Your task to perform on an android device: uninstall "Paramount+ | Peak Streaming" Image 0: 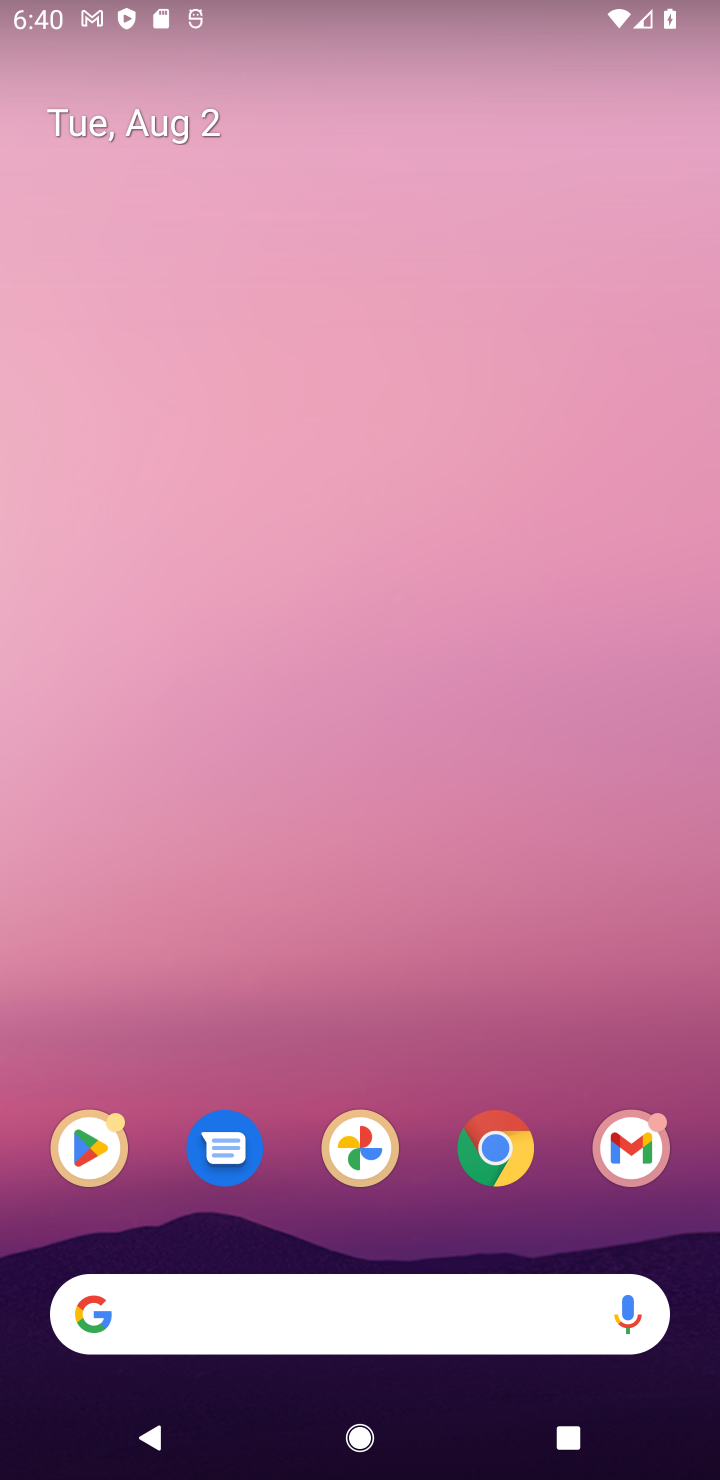
Step 0: drag from (683, 1278) to (391, 177)
Your task to perform on an android device: uninstall "Paramount+ | Peak Streaming" Image 1: 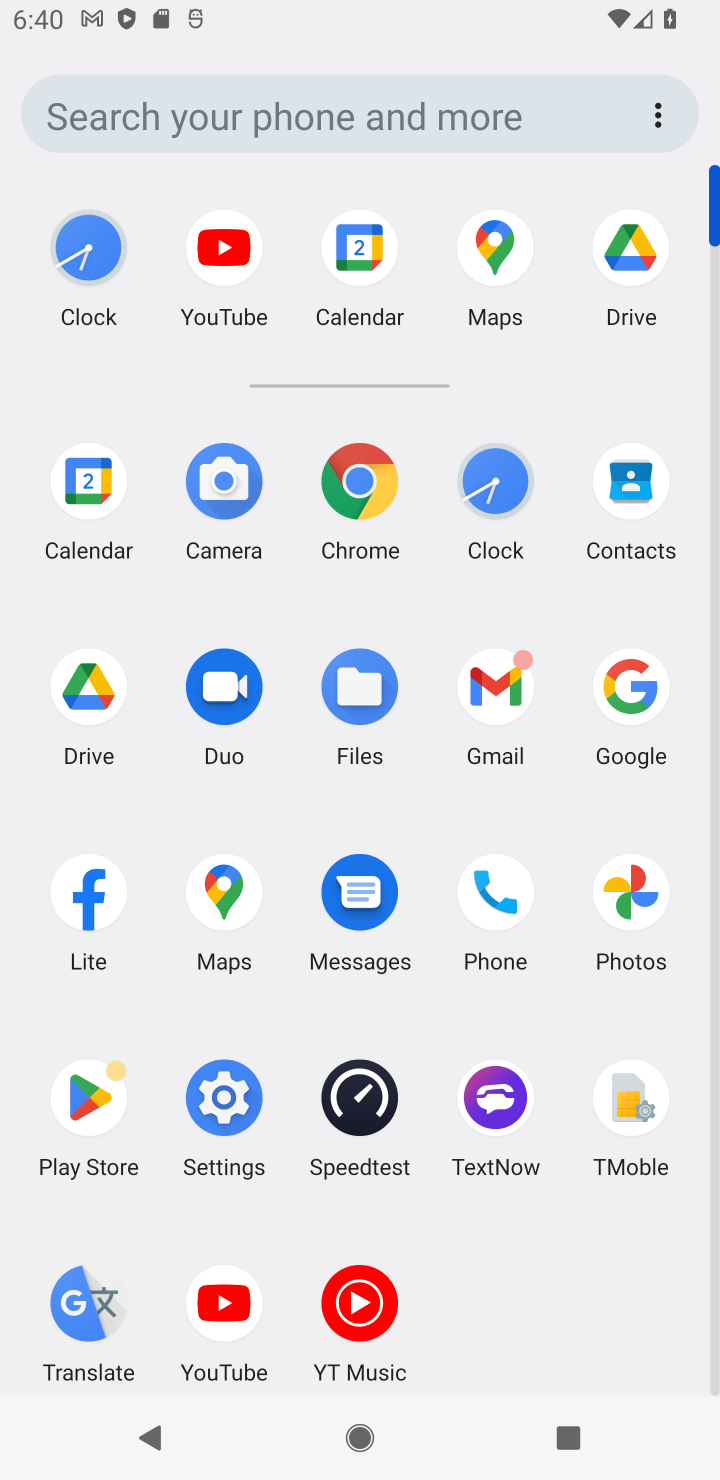
Step 1: press home button
Your task to perform on an android device: uninstall "Paramount+ | Peak Streaming" Image 2: 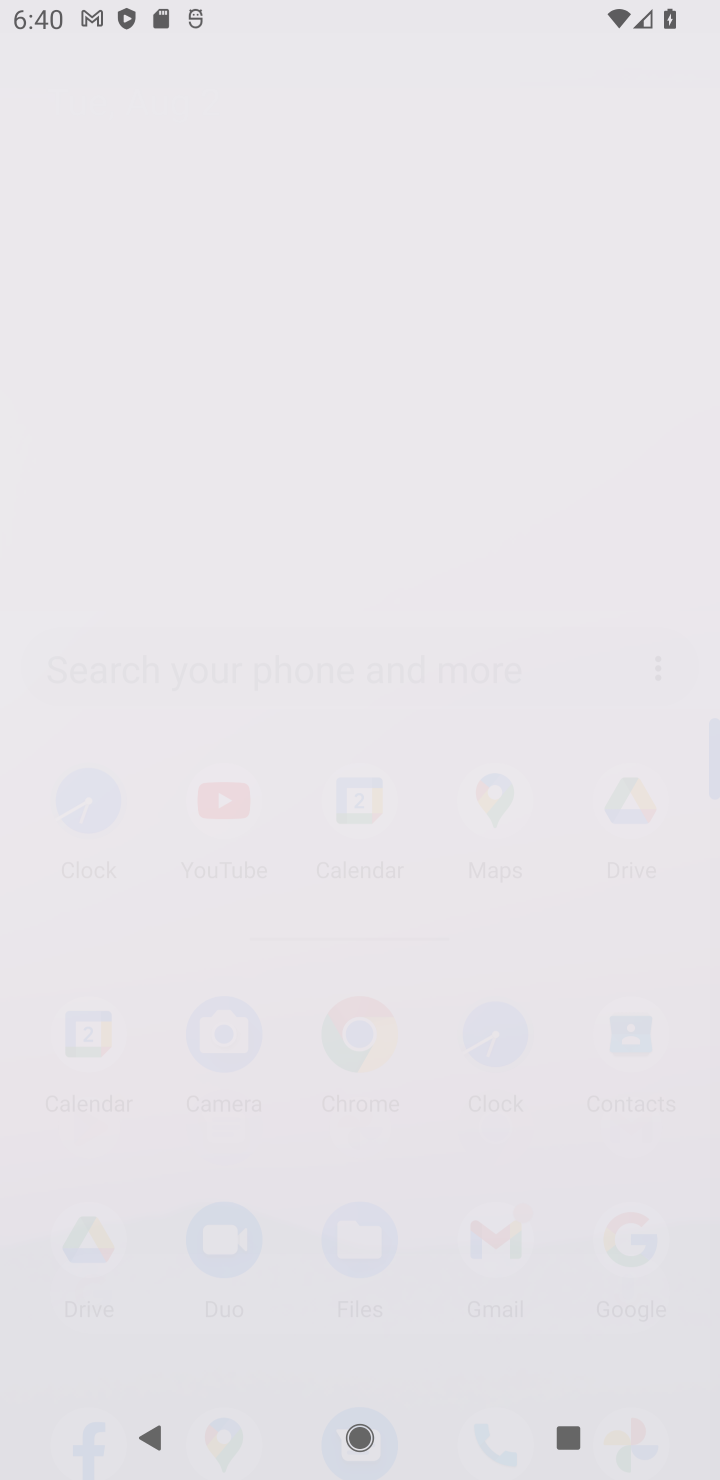
Step 2: drag from (692, 1287) to (258, 83)
Your task to perform on an android device: uninstall "Paramount+ | Peak Streaming" Image 3: 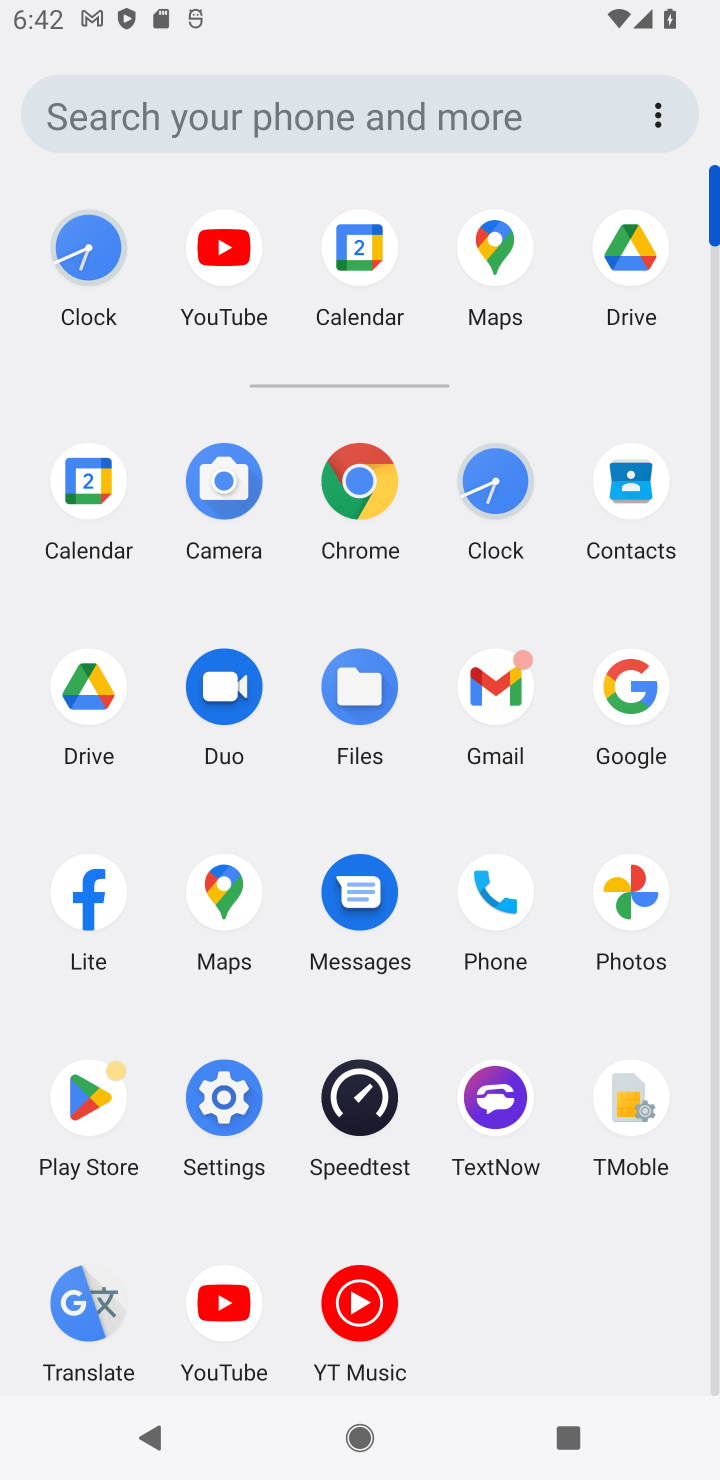
Step 3: click (86, 1111)
Your task to perform on an android device: uninstall "Paramount+ | Peak Streaming" Image 4: 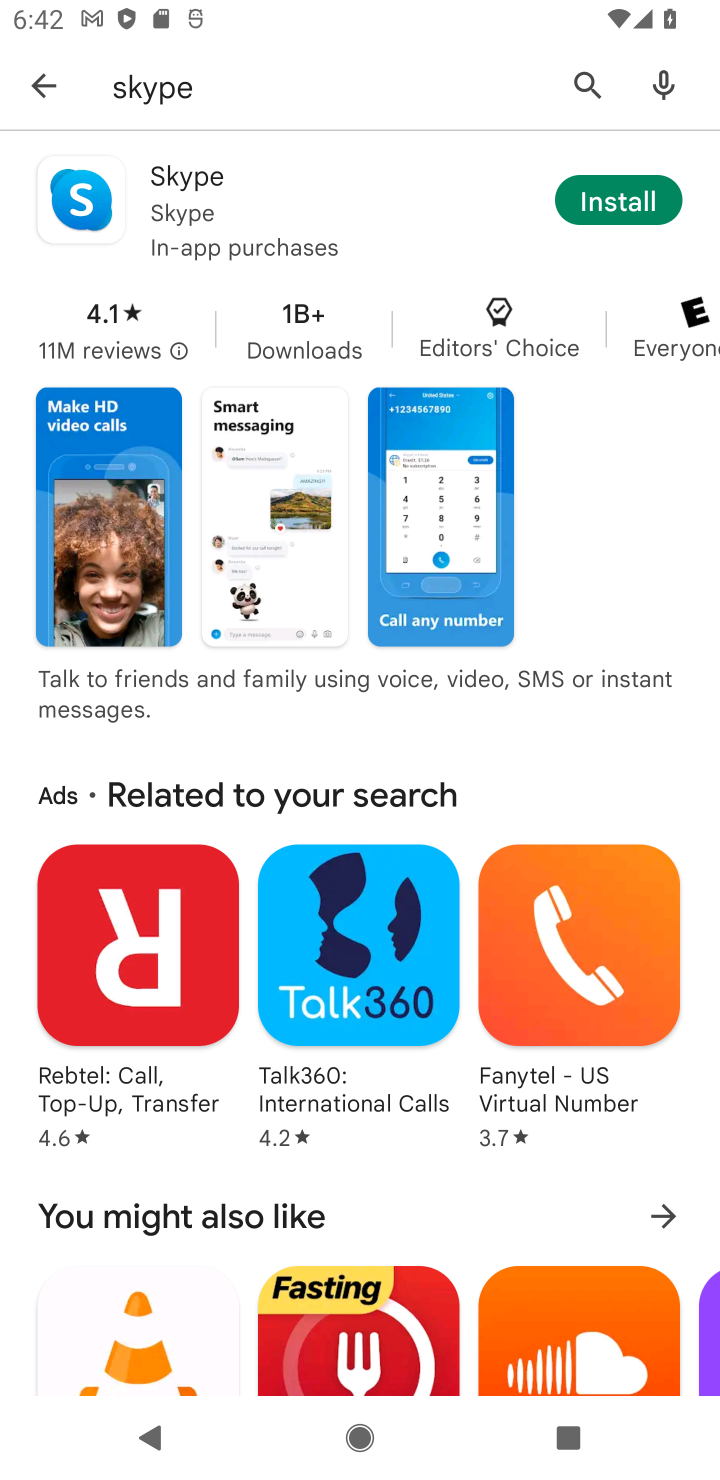
Step 4: press back button
Your task to perform on an android device: uninstall "Paramount+ | Peak Streaming" Image 5: 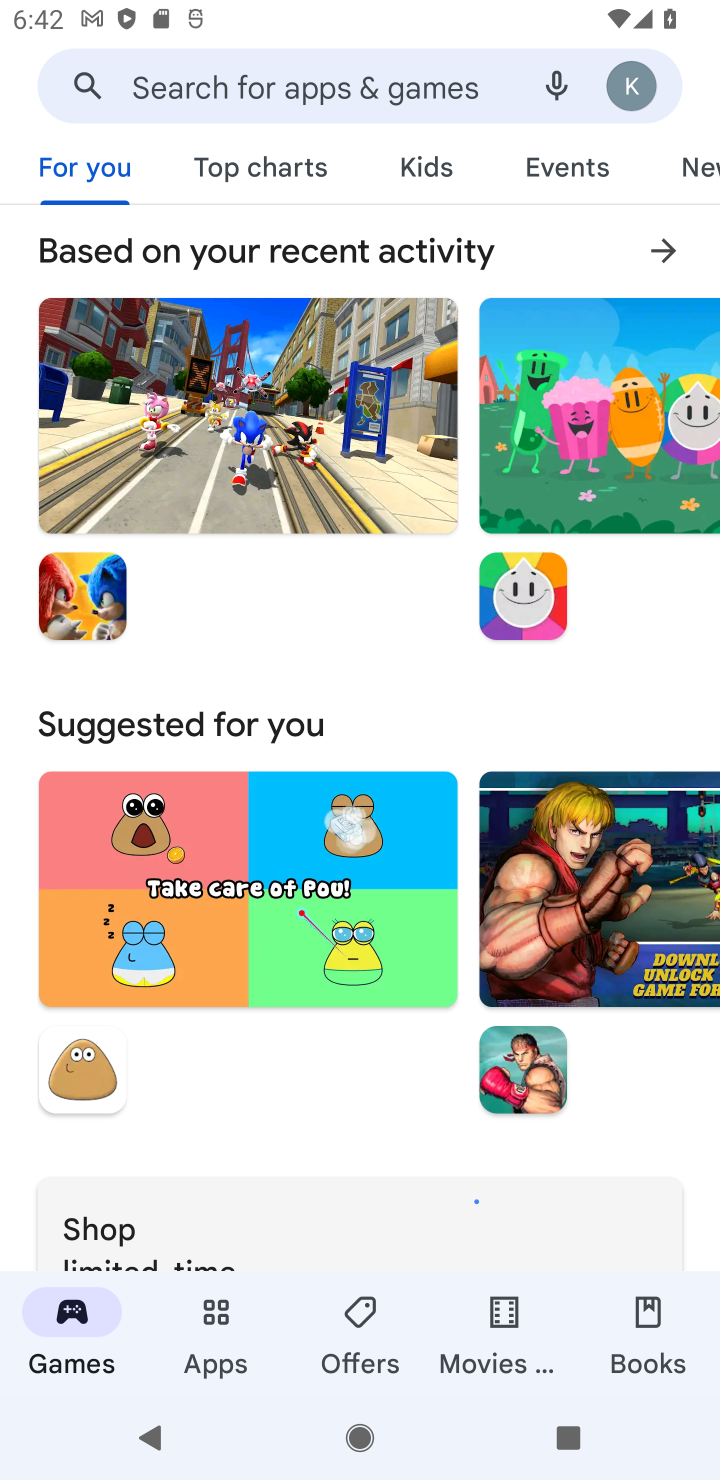
Step 5: click (160, 99)
Your task to perform on an android device: uninstall "Paramount+ | Peak Streaming" Image 6: 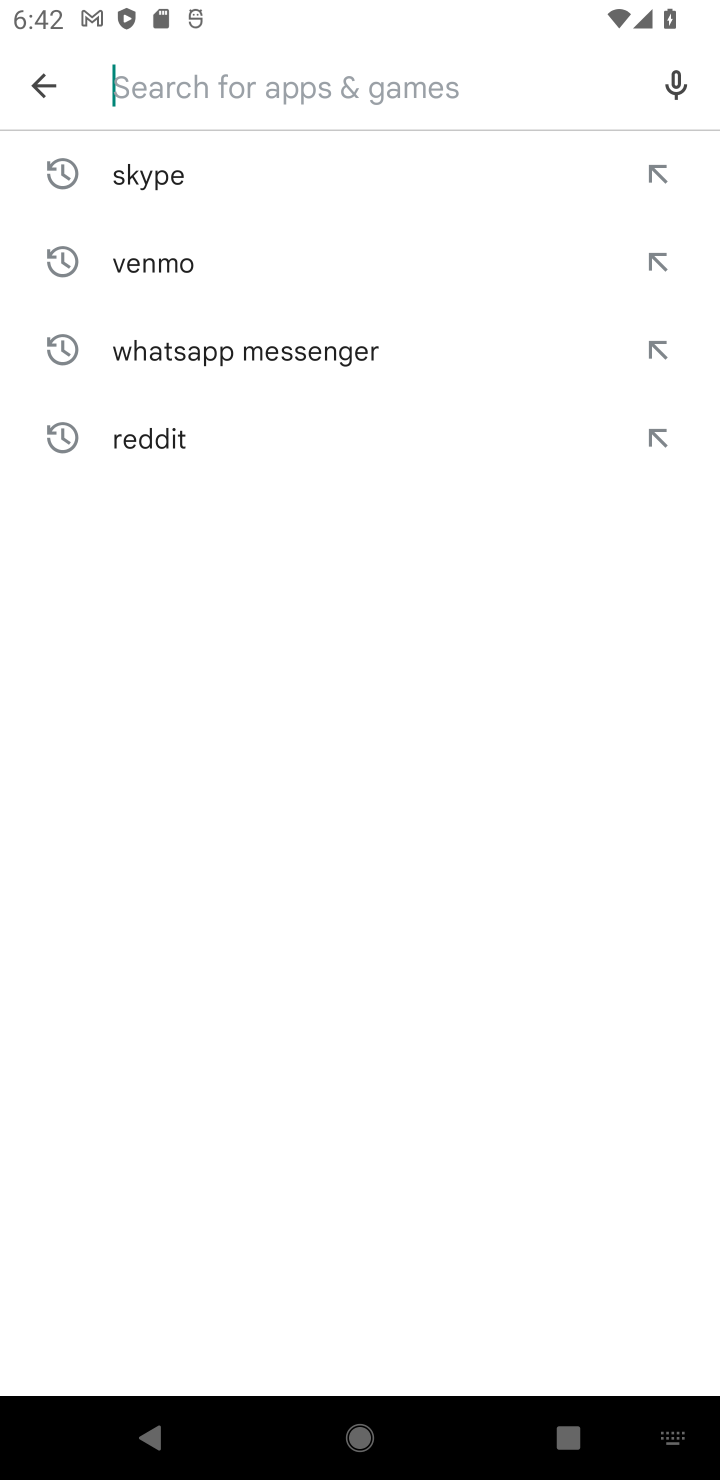
Step 6: type "Paramount+ | Peak Streaming"
Your task to perform on an android device: uninstall "Paramount+ | Peak Streaming" Image 7: 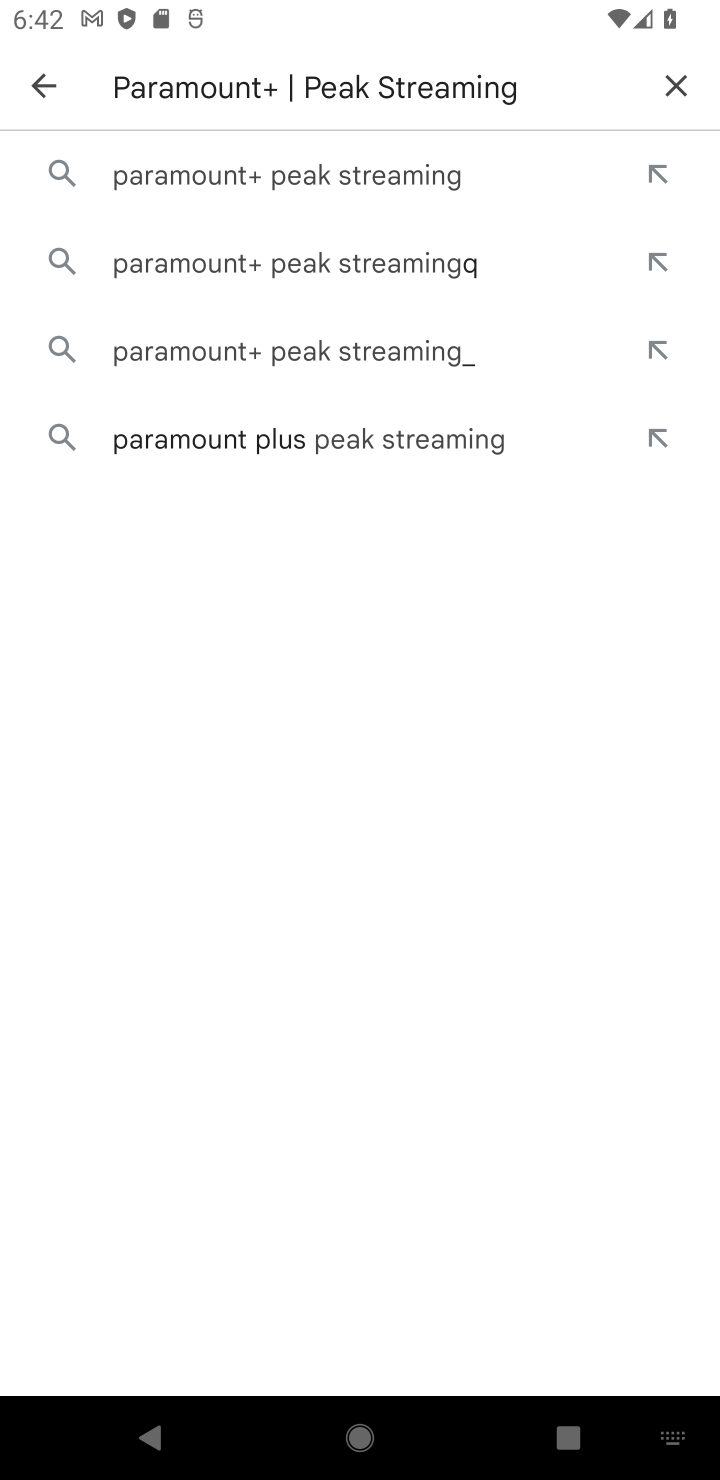
Step 7: click (274, 188)
Your task to perform on an android device: uninstall "Paramount+ | Peak Streaming" Image 8: 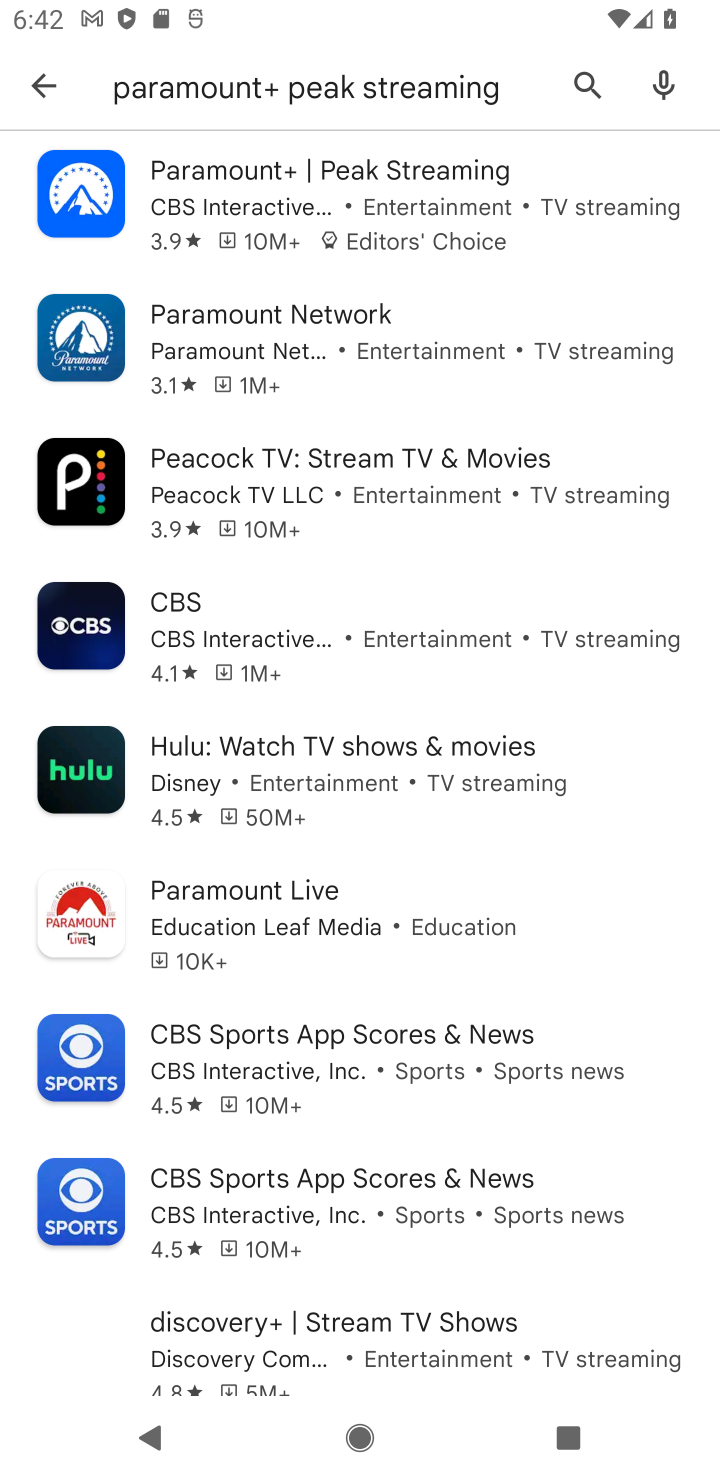
Step 8: task complete